Your task to perform on an android device: Open Chrome and go to settings Image 0: 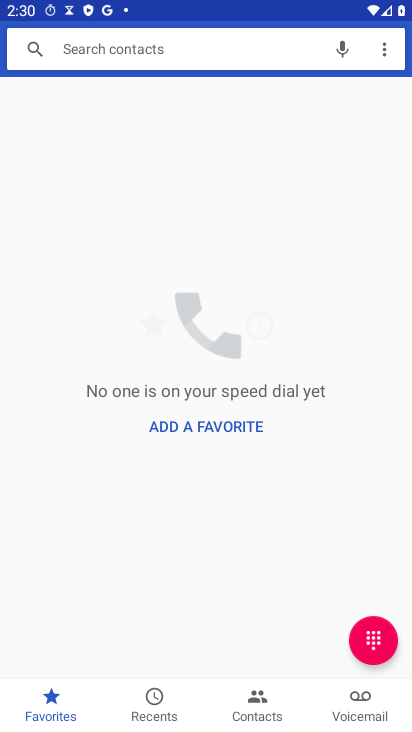
Step 0: press home button
Your task to perform on an android device: Open Chrome and go to settings Image 1: 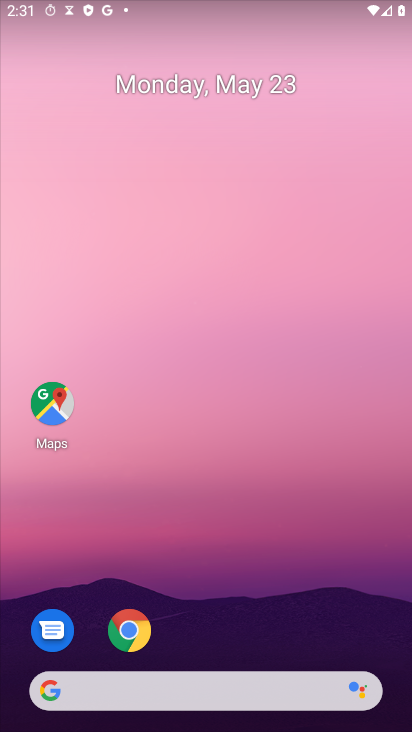
Step 1: drag from (286, 603) to (222, 228)
Your task to perform on an android device: Open Chrome and go to settings Image 2: 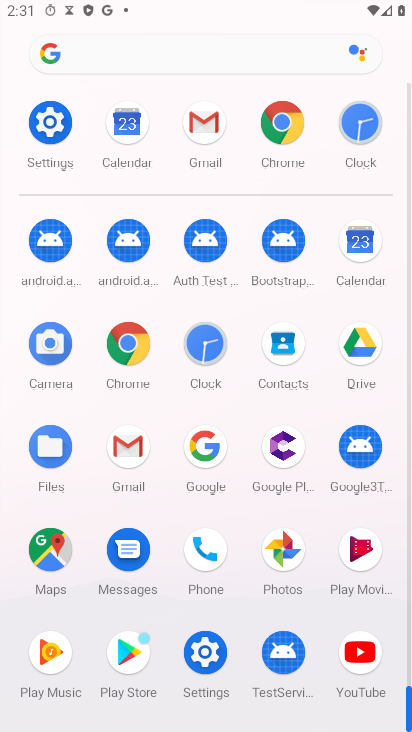
Step 2: click (289, 128)
Your task to perform on an android device: Open Chrome and go to settings Image 3: 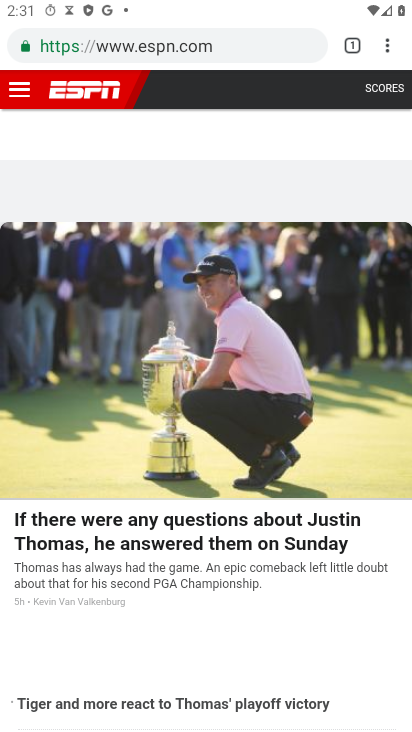
Step 3: drag from (384, 50) to (267, 539)
Your task to perform on an android device: Open Chrome and go to settings Image 4: 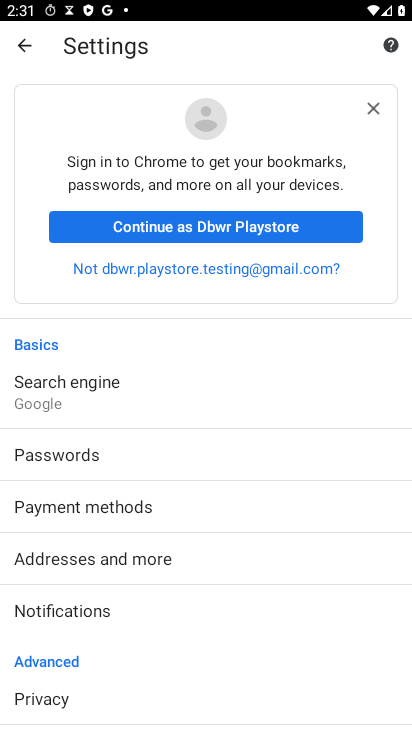
Step 4: drag from (190, 640) to (166, 193)
Your task to perform on an android device: Open Chrome and go to settings Image 5: 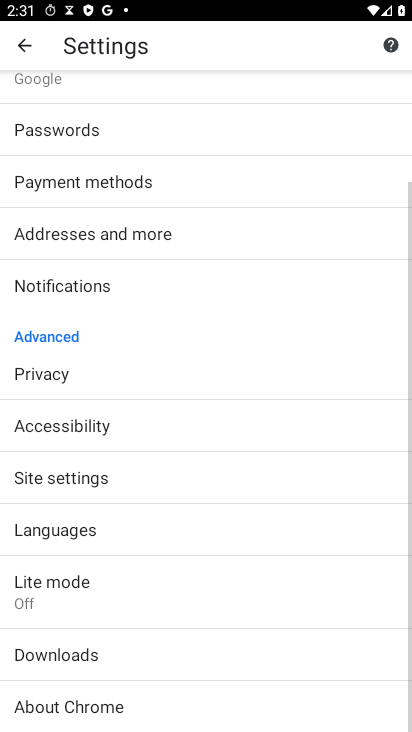
Step 5: drag from (125, 642) to (191, 103)
Your task to perform on an android device: Open Chrome and go to settings Image 6: 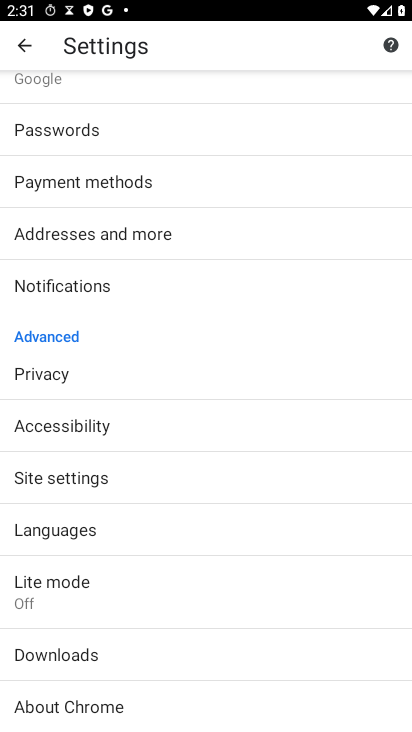
Step 6: drag from (241, 611) to (215, 169)
Your task to perform on an android device: Open Chrome and go to settings Image 7: 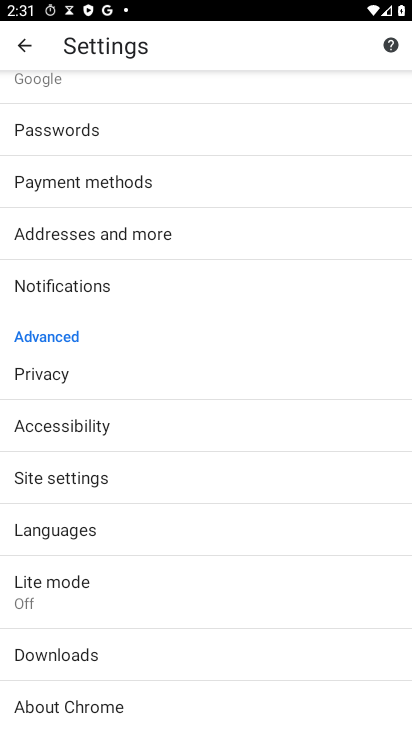
Step 7: drag from (170, 654) to (206, 231)
Your task to perform on an android device: Open Chrome and go to settings Image 8: 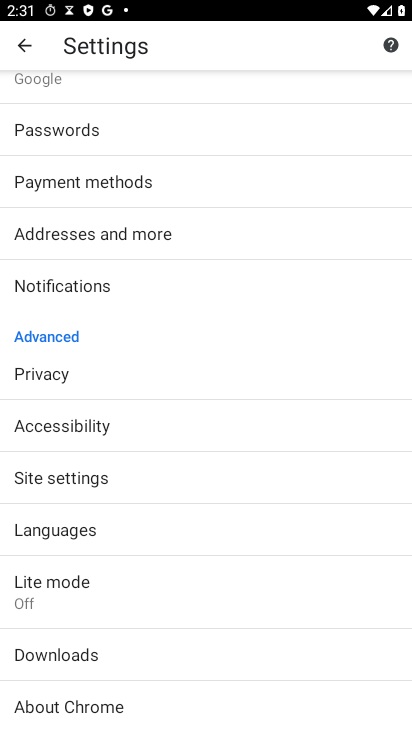
Step 8: click (194, 669)
Your task to perform on an android device: Open Chrome and go to settings Image 9: 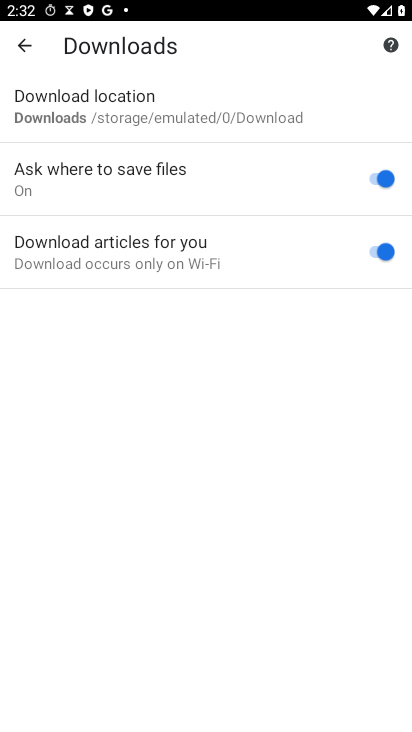
Step 9: press home button
Your task to perform on an android device: Open Chrome and go to settings Image 10: 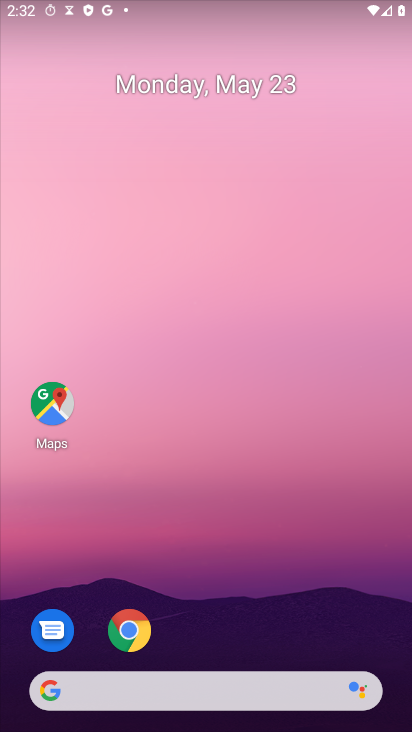
Step 10: click (131, 631)
Your task to perform on an android device: Open Chrome and go to settings Image 11: 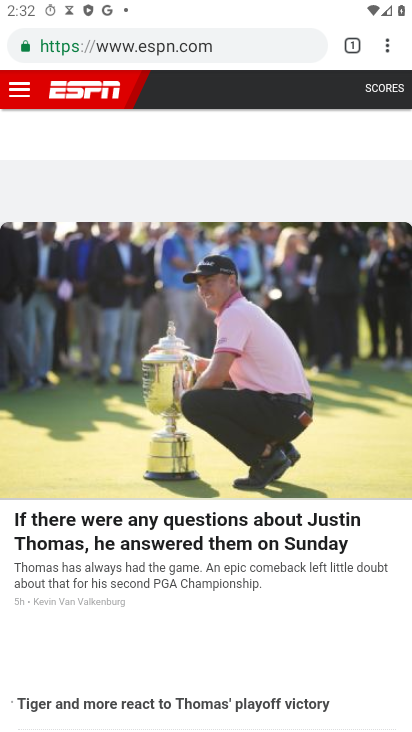
Step 11: task complete